Your task to perform on an android device: Search for the Nintendo Switch. Image 0: 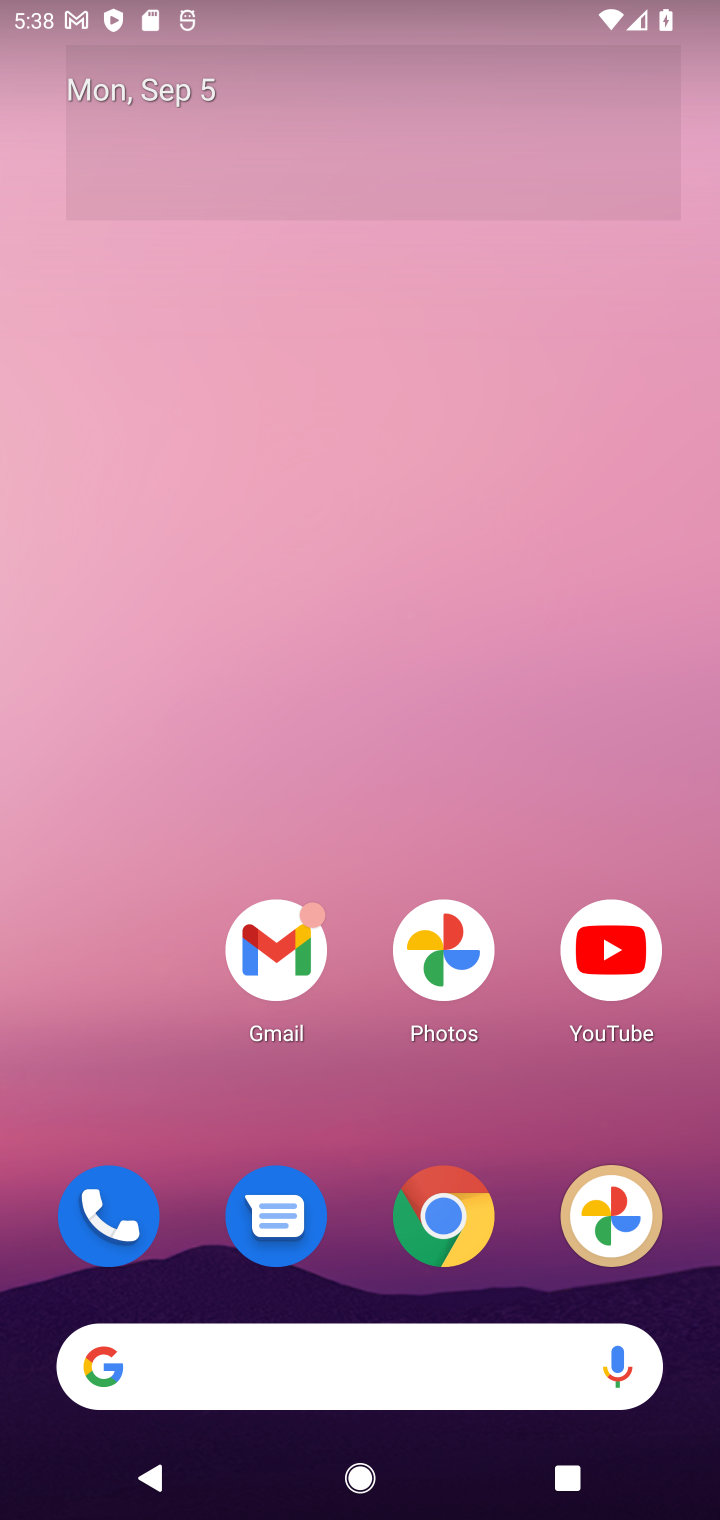
Step 0: click (437, 1230)
Your task to perform on an android device: Search for the Nintendo Switch. Image 1: 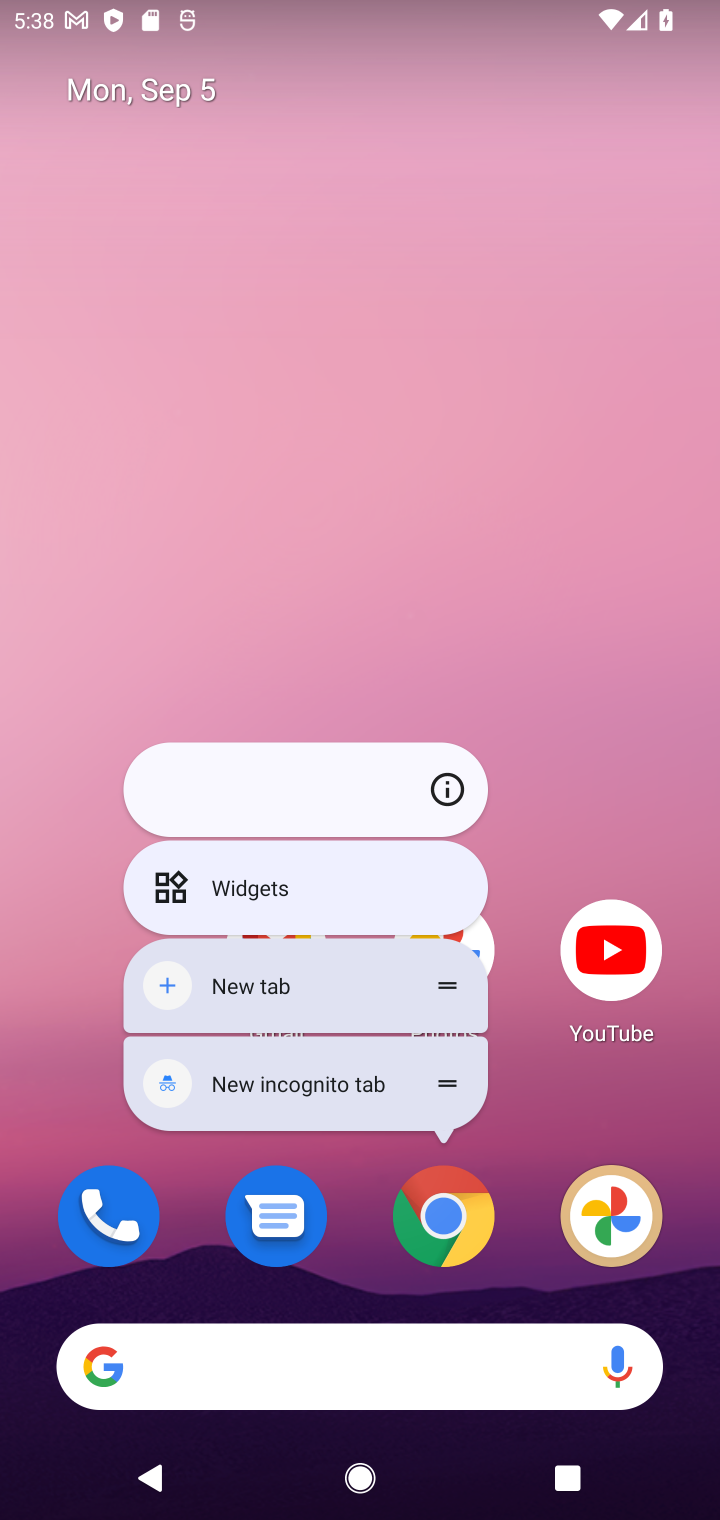
Step 1: click (425, 1217)
Your task to perform on an android device: Search for the Nintendo Switch. Image 2: 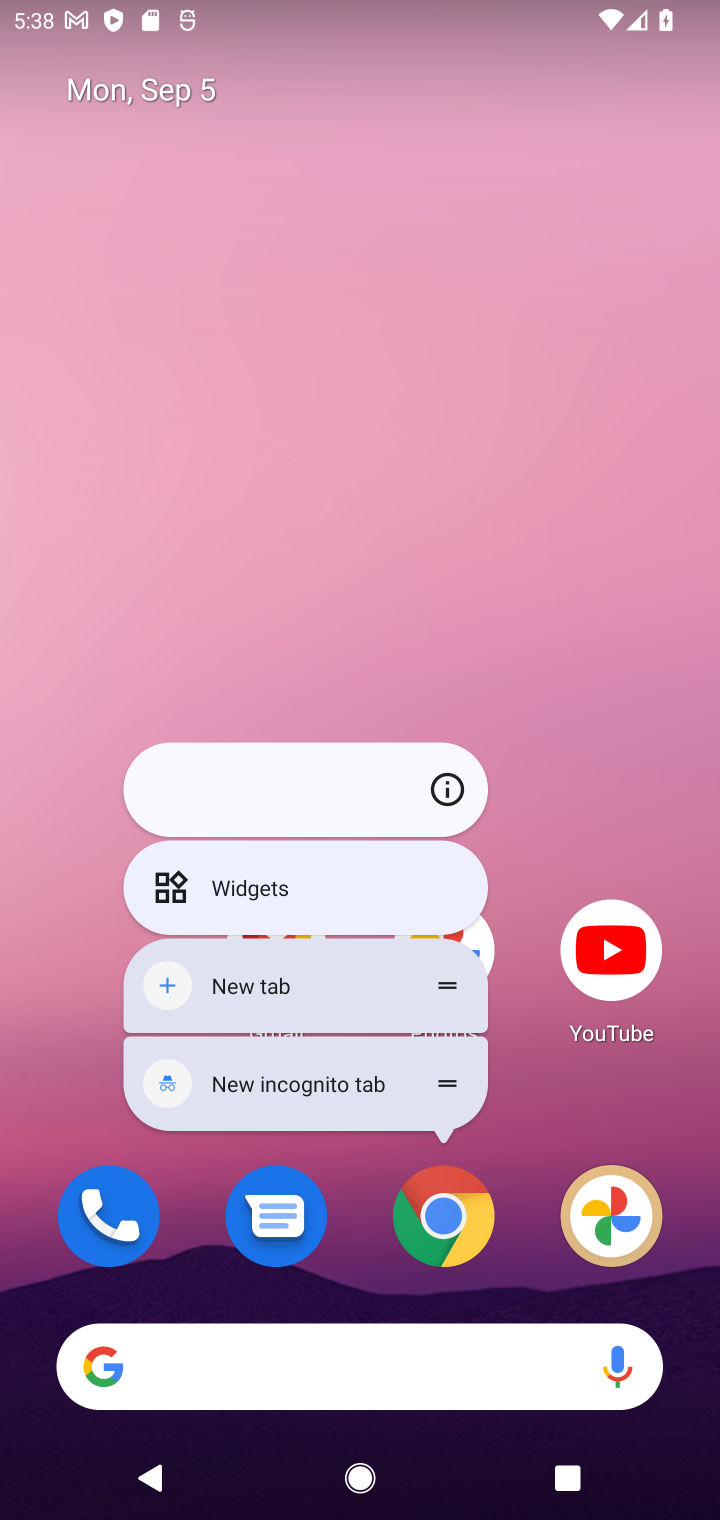
Step 2: click (449, 1214)
Your task to perform on an android device: Search for the Nintendo Switch. Image 3: 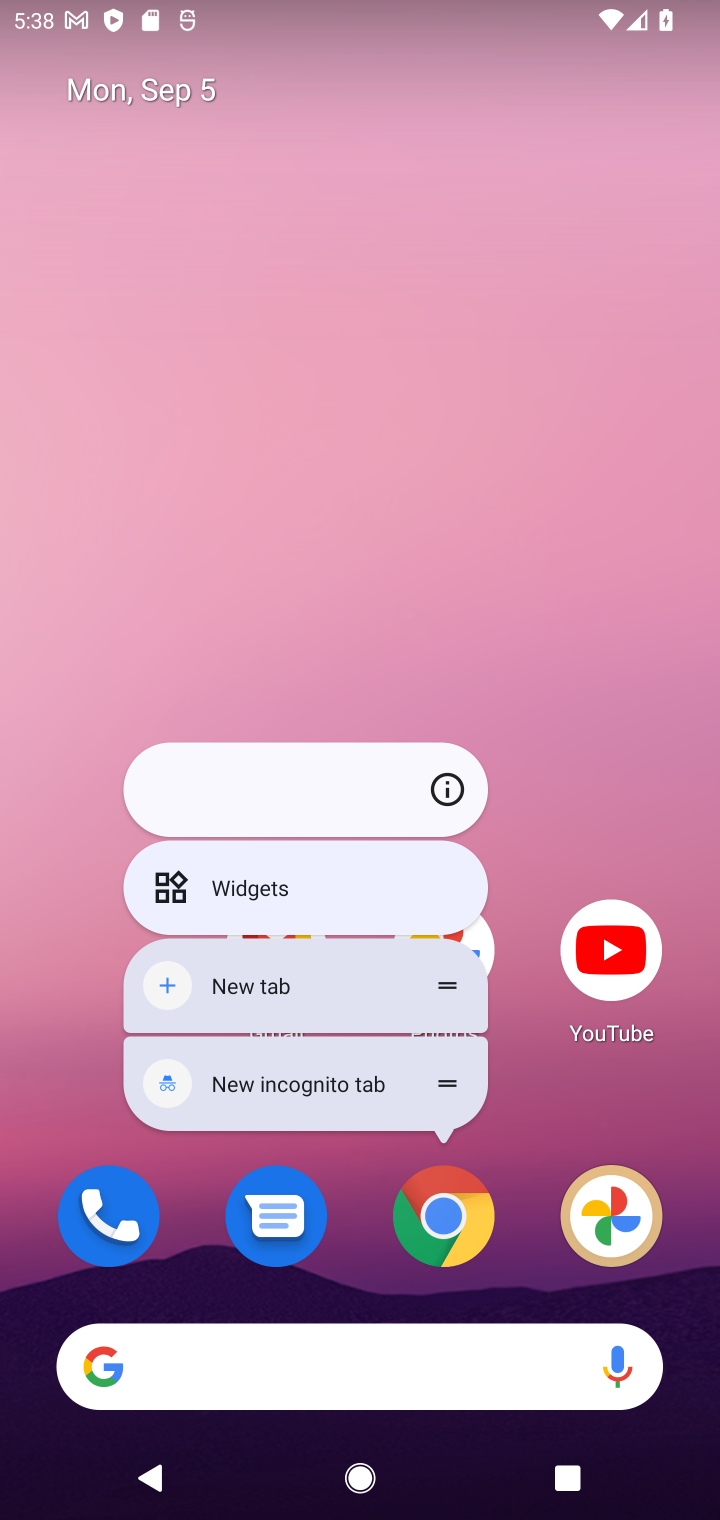
Step 3: click (428, 1228)
Your task to perform on an android device: Search for the Nintendo Switch. Image 4: 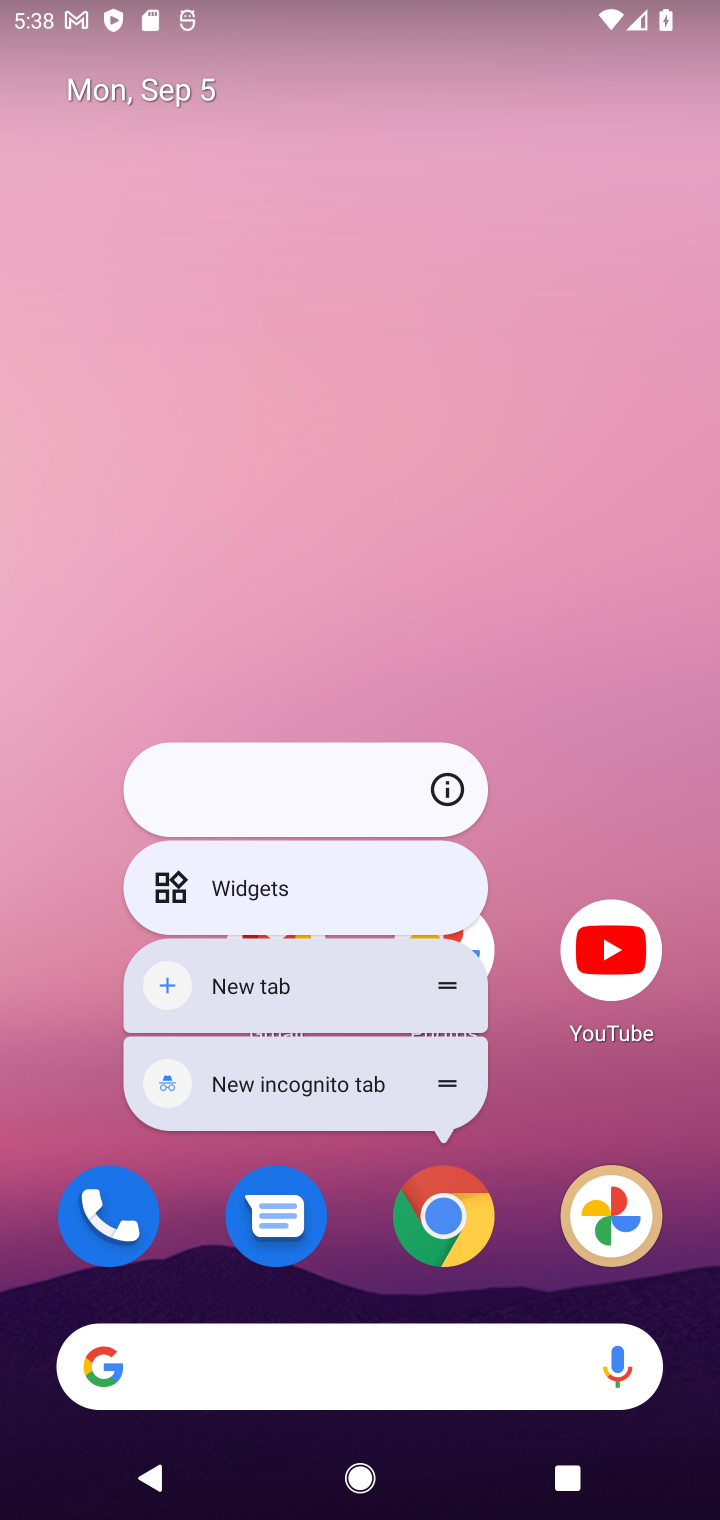
Step 4: click (191, 988)
Your task to perform on an android device: Search for the Nintendo Switch. Image 5: 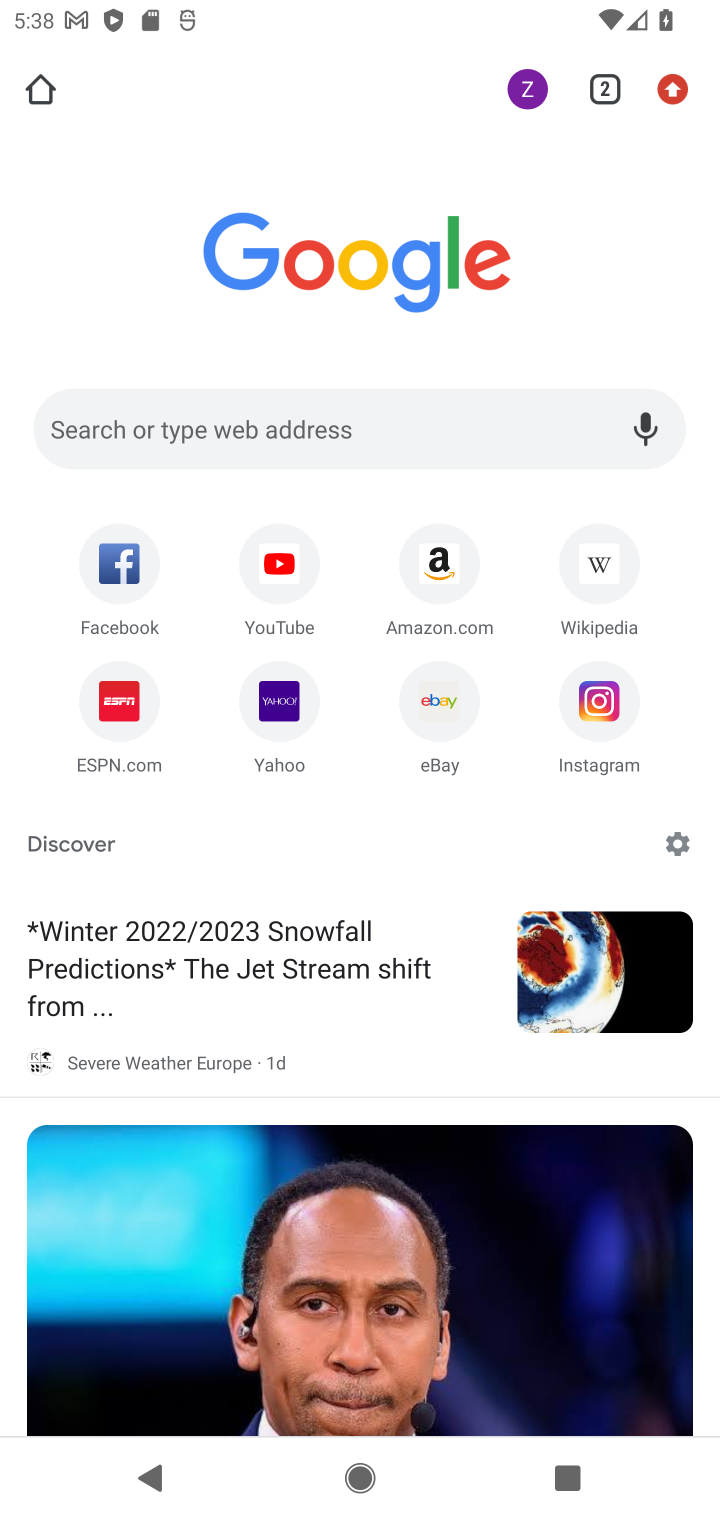
Step 5: click (312, 419)
Your task to perform on an android device: Search for the Nintendo Switch. Image 6: 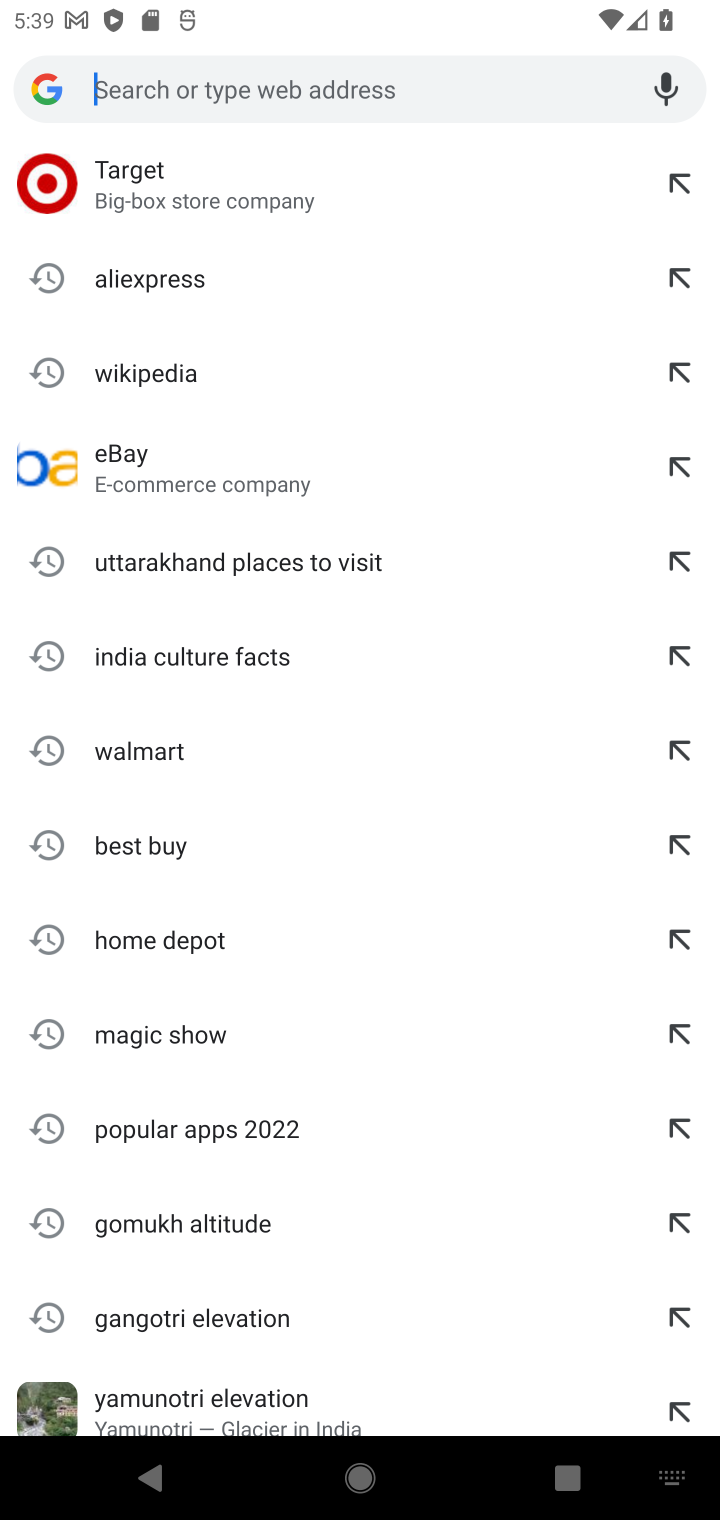
Step 6: type "nintendo switch"
Your task to perform on an android device: Search for the Nintendo Switch. Image 7: 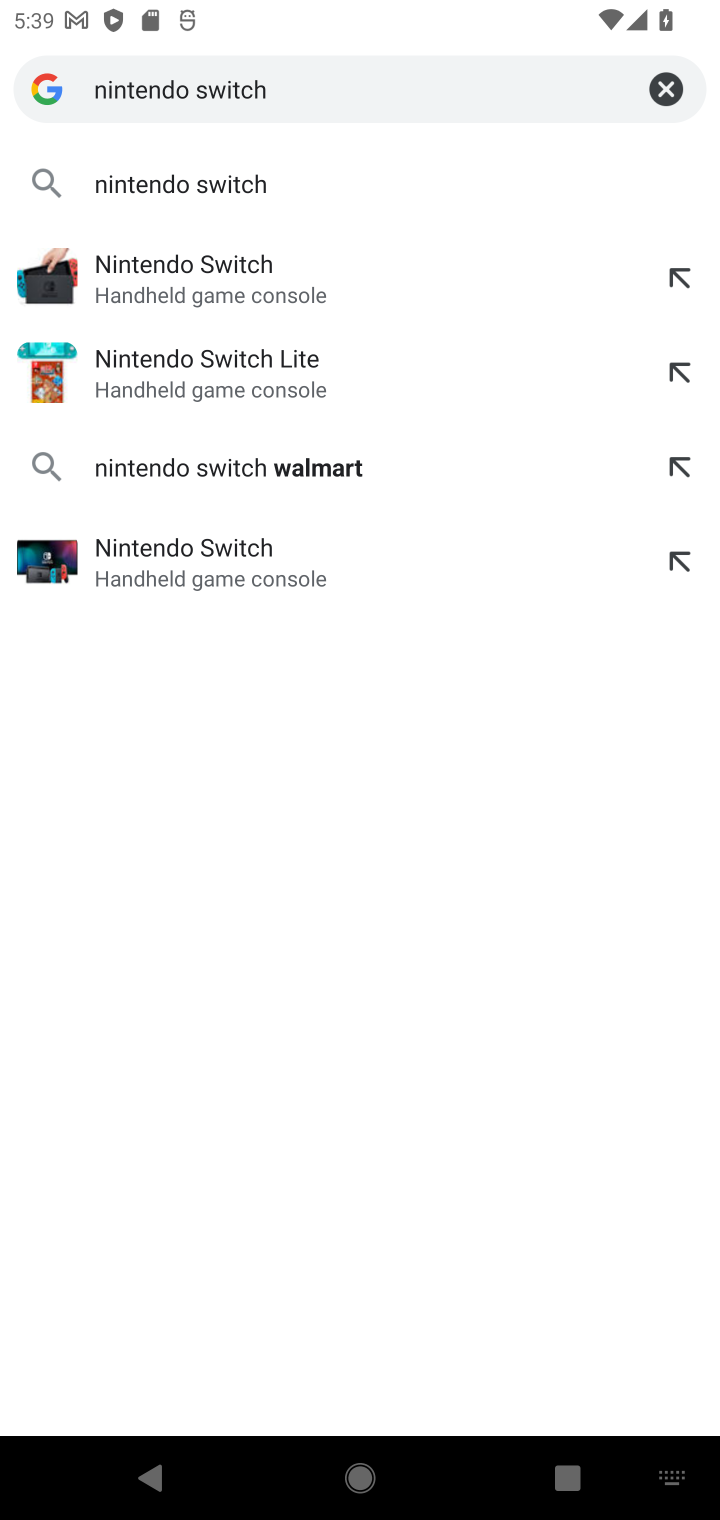
Step 7: click (273, 190)
Your task to perform on an android device: Search for the Nintendo Switch. Image 8: 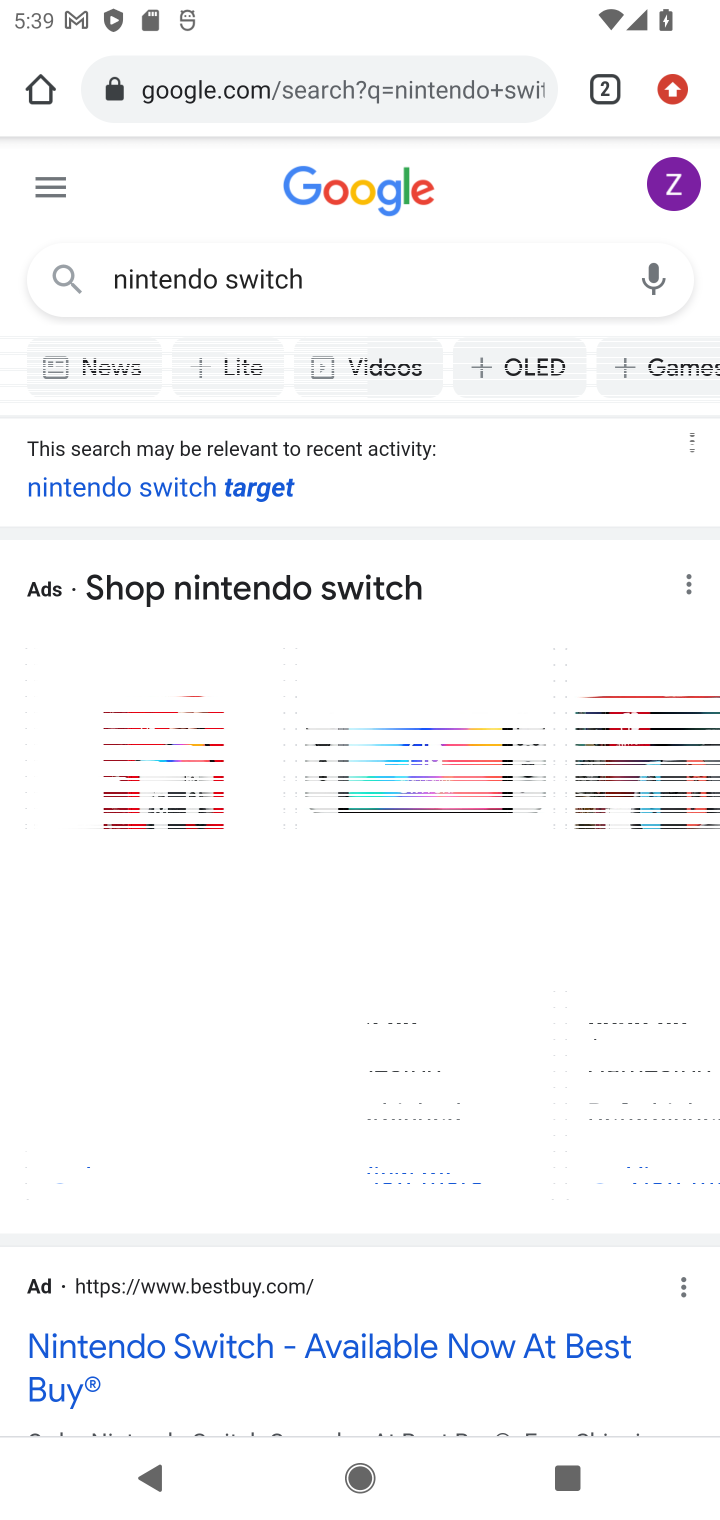
Step 8: drag from (246, 1360) to (315, 585)
Your task to perform on an android device: Search for the Nintendo Switch. Image 9: 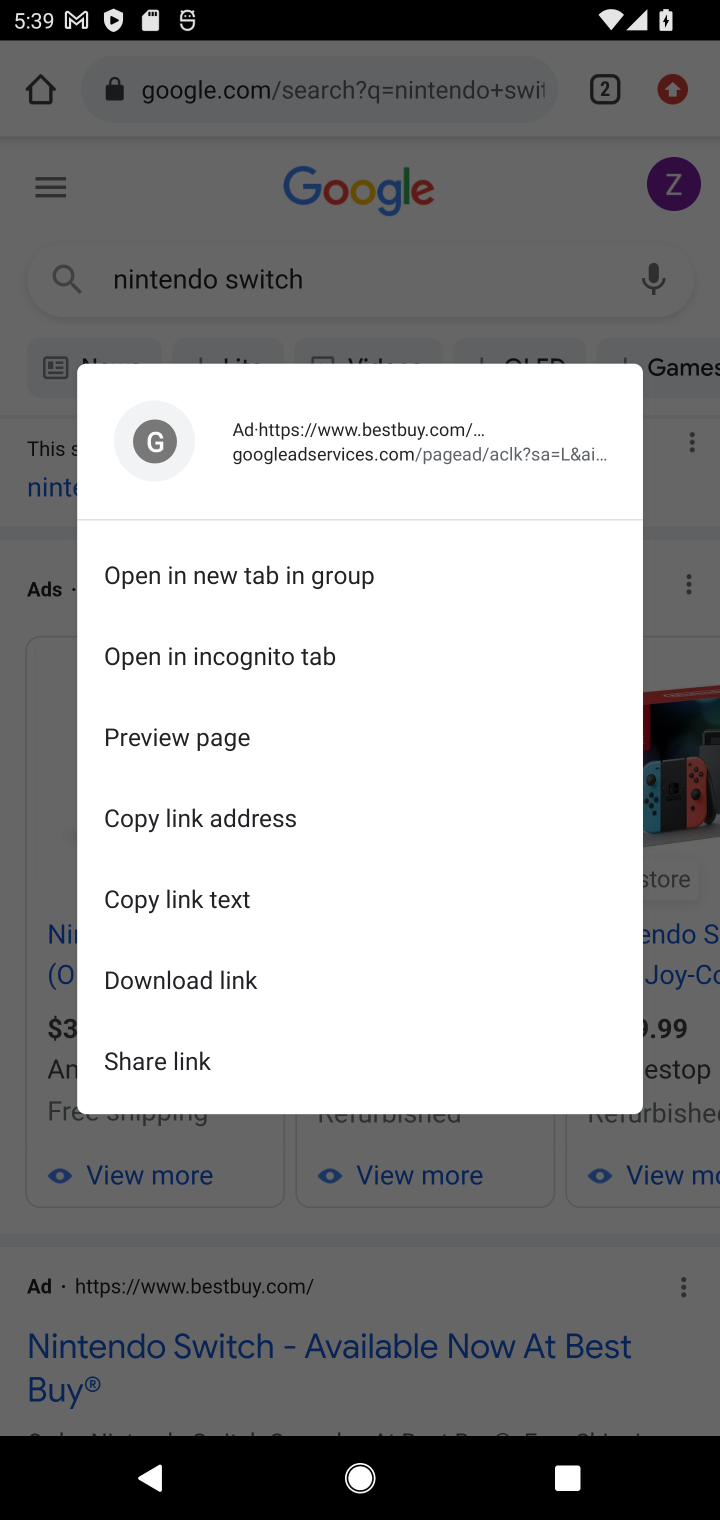
Step 9: click (611, 1240)
Your task to perform on an android device: Search for the Nintendo Switch. Image 10: 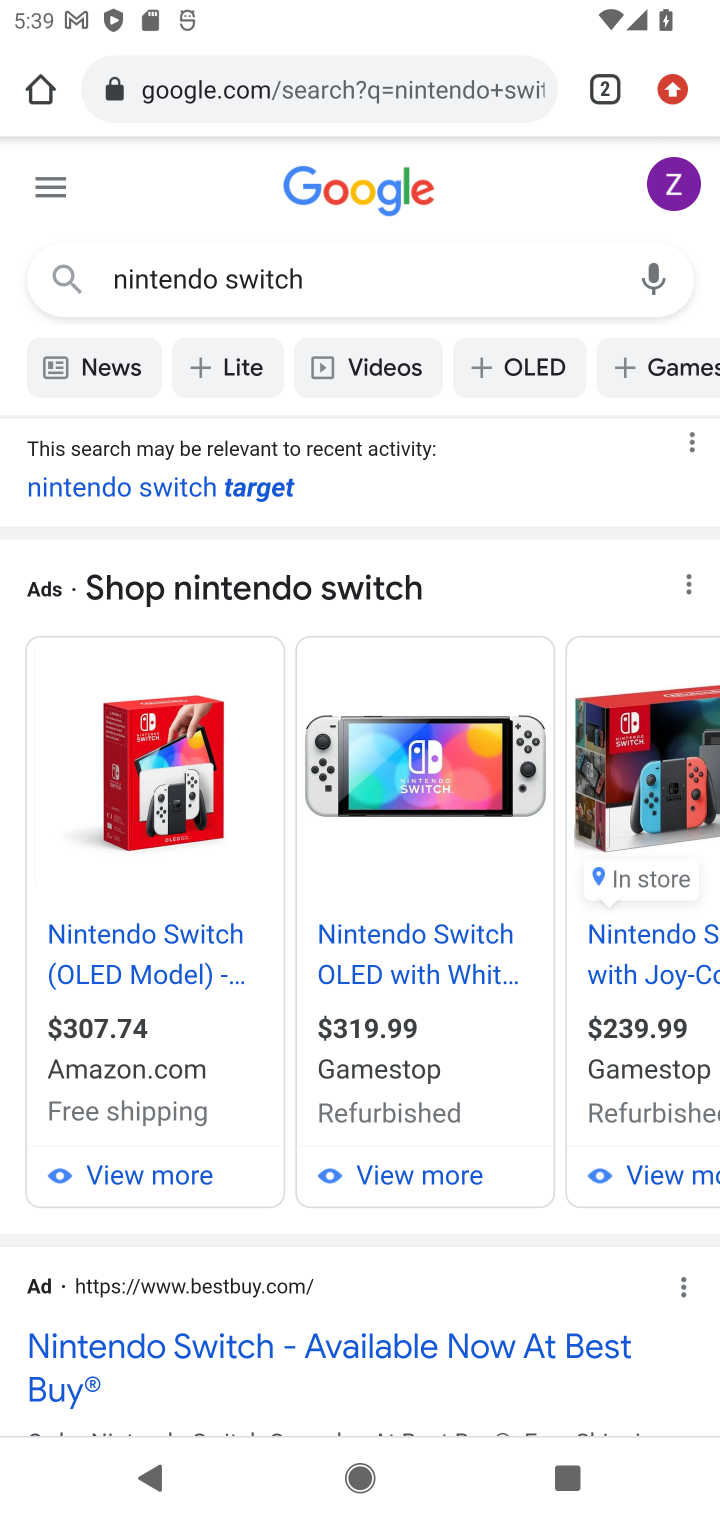
Step 10: drag from (475, 1279) to (532, 165)
Your task to perform on an android device: Search for the Nintendo Switch. Image 11: 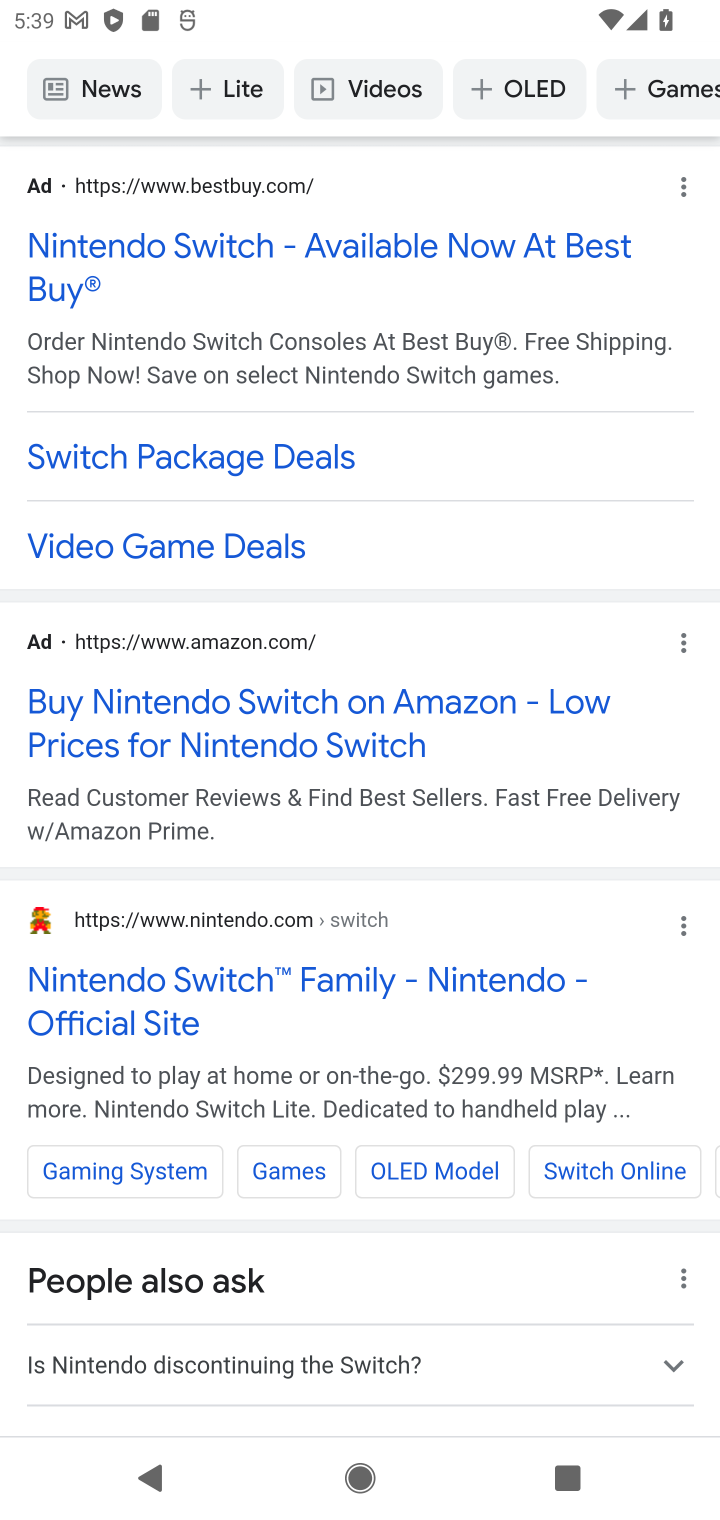
Step 11: click (173, 993)
Your task to perform on an android device: Search for the Nintendo Switch. Image 12: 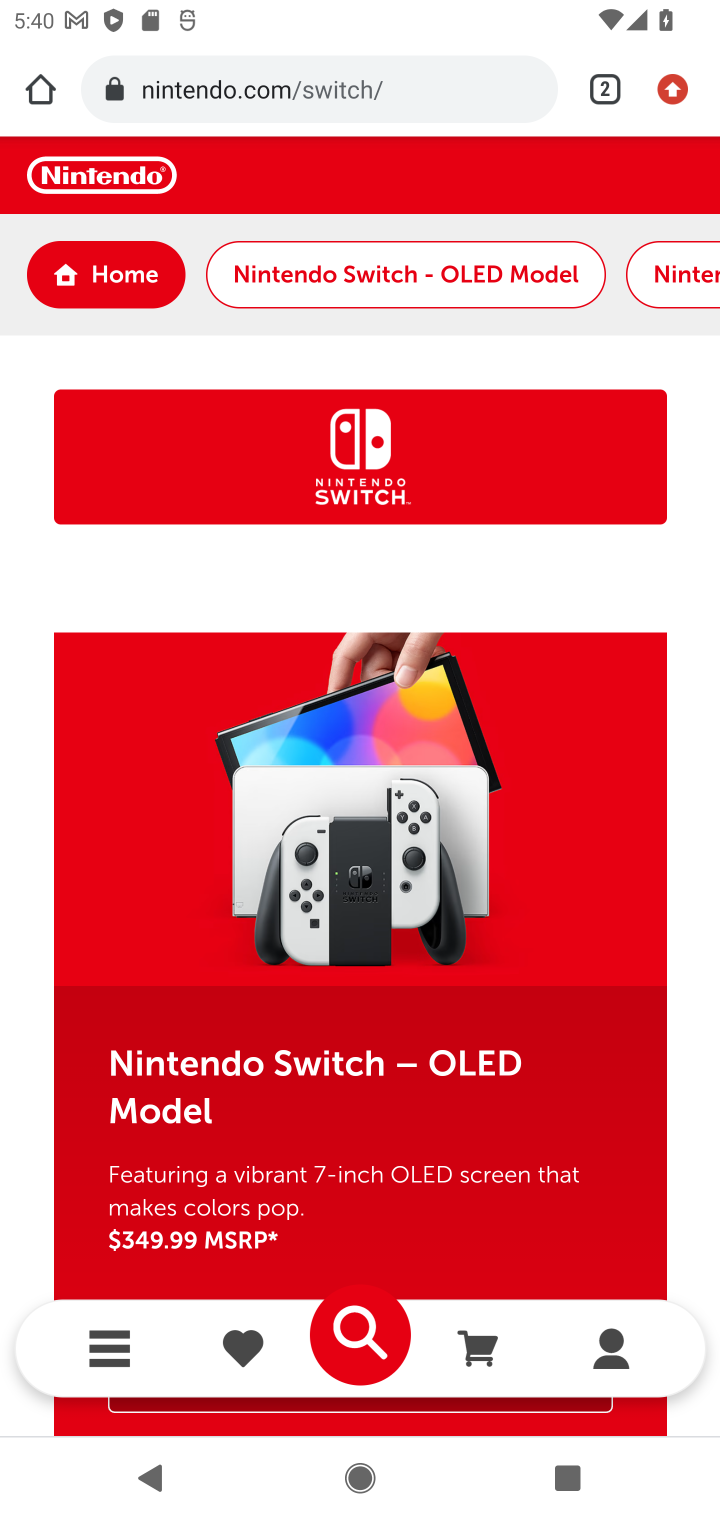
Step 12: task complete